Your task to perform on an android device: Check out the new nike air max 2020. Image 0: 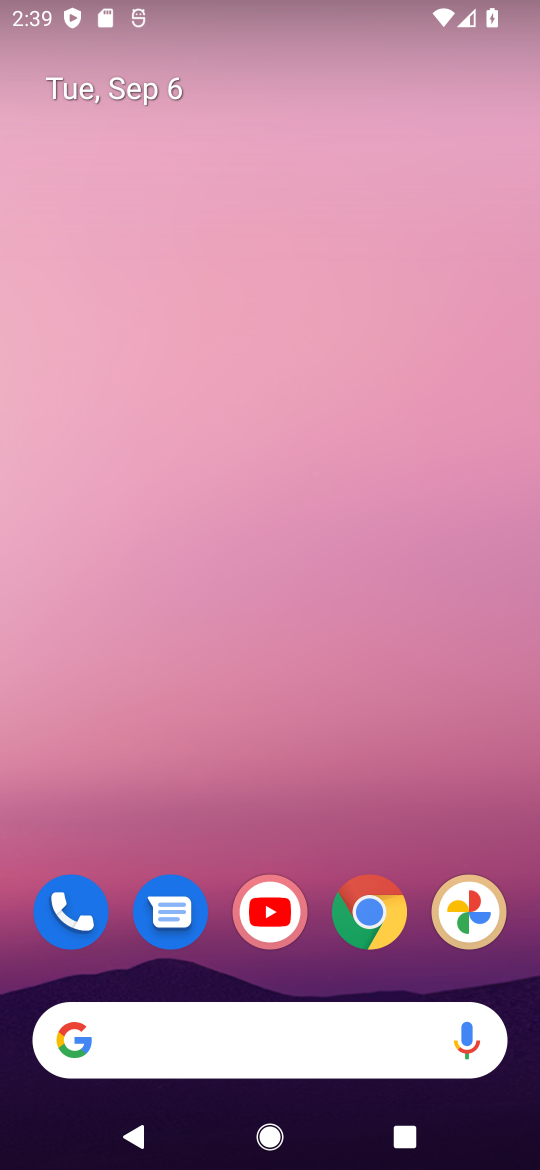
Step 0: drag from (329, 949) to (371, 132)
Your task to perform on an android device: Check out the new nike air max 2020. Image 1: 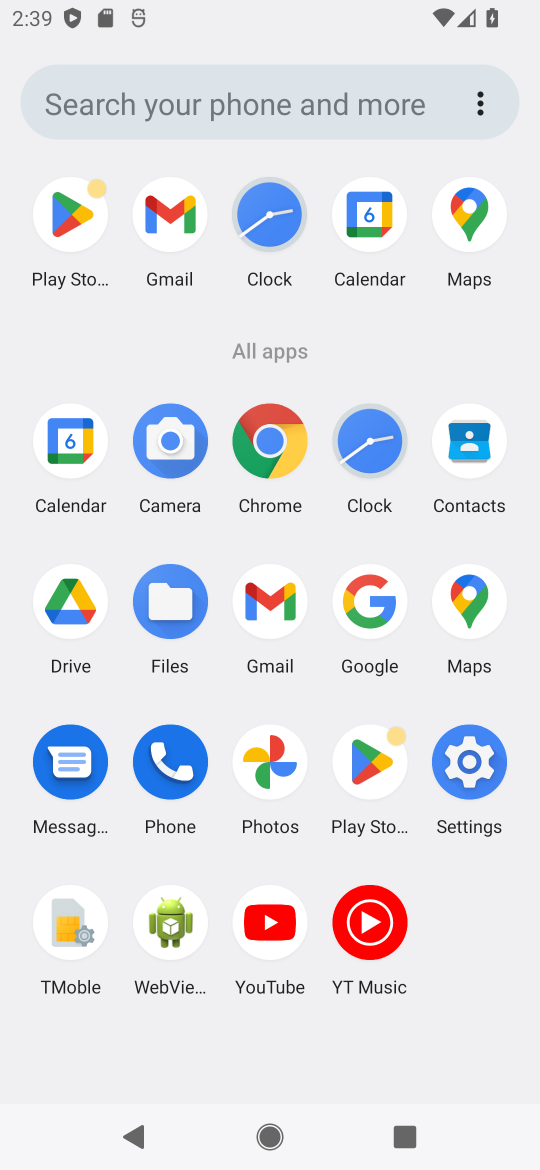
Step 1: click (265, 432)
Your task to perform on an android device: Check out the new nike air max 2020. Image 2: 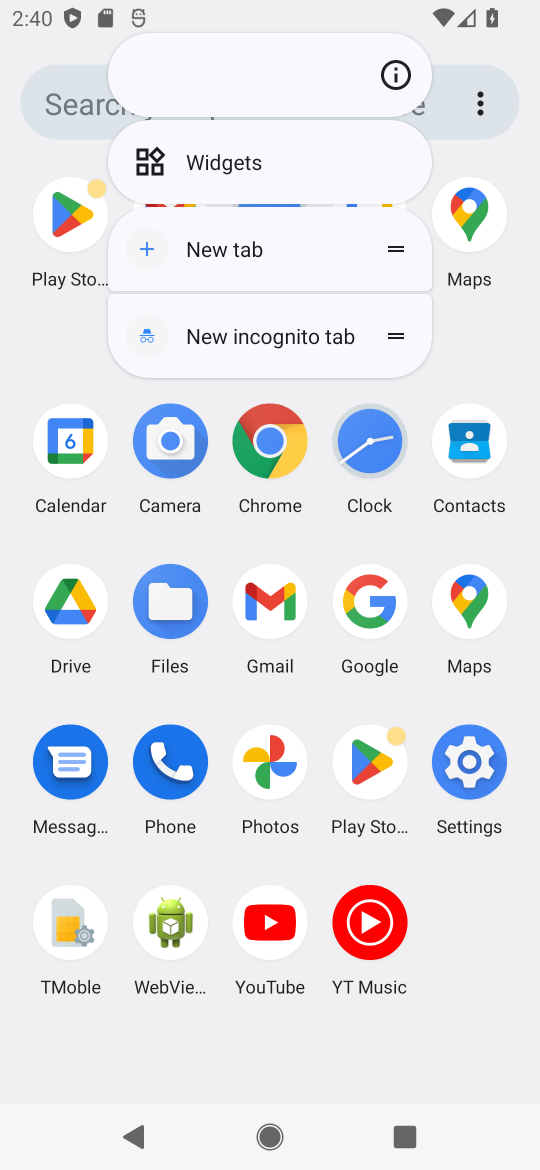
Step 2: click (263, 450)
Your task to perform on an android device: Check out the new nike air max 2020. Image 3: 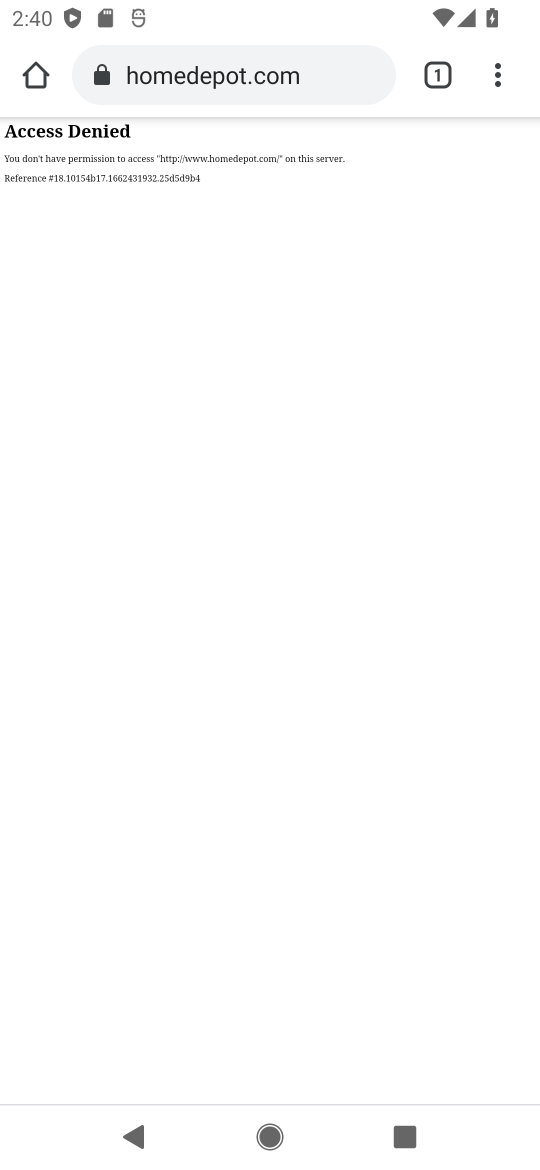
Step 3: click (205, 75)
Your task to perform on an android device: Check out the new nike air max 2020. Image 4: 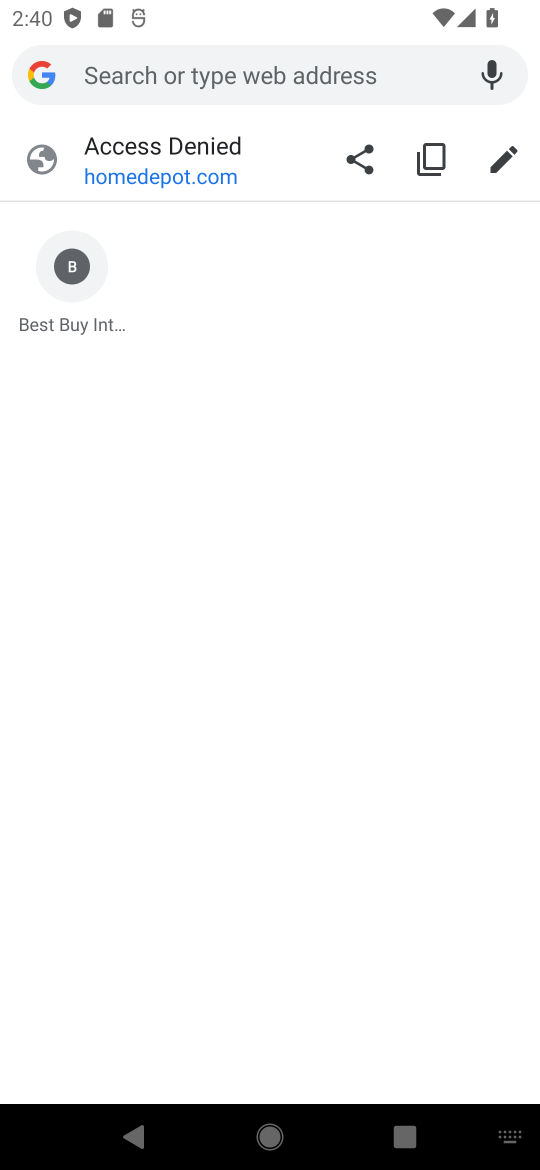
Step 4: type "new nike air max 2020"
Your task to perform on an android device: Check out the new nike air max 2020. Image 5: 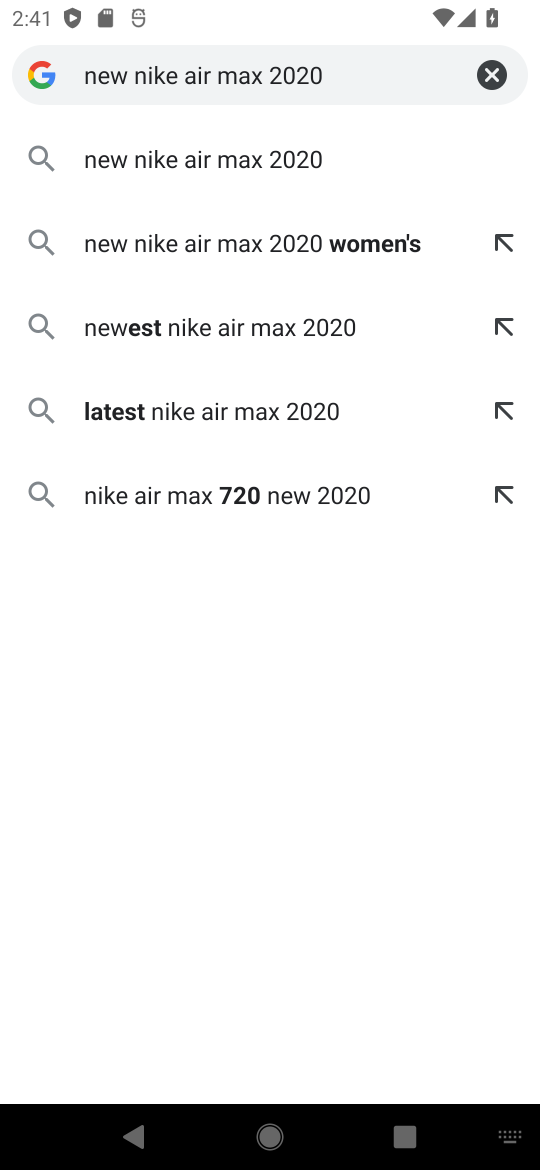
Step 5: click (236, 159)
Your task to perform on an android device: Check out the new nike air max 2020. Image 6: 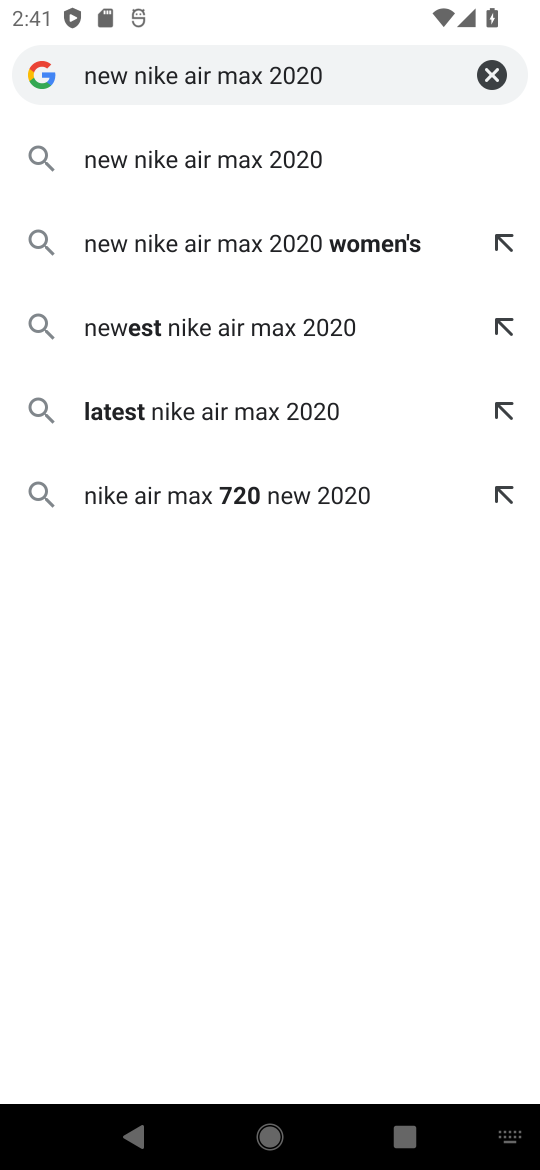
Step 6: click (237, 157)
Your task to perform on an android device: Check out the new nike air max 2020. Image 7: 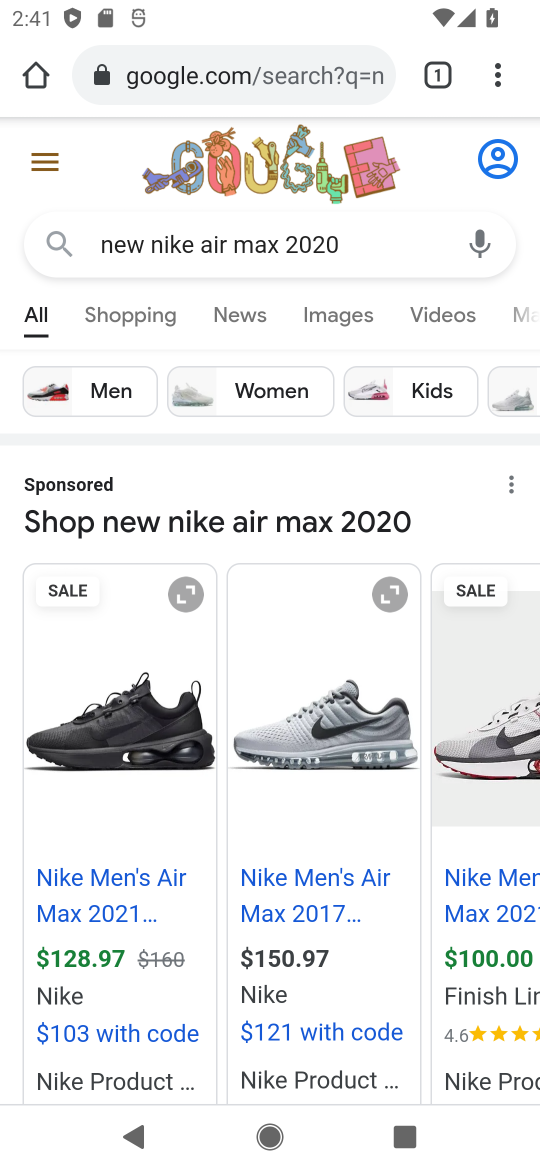
Step 7: task complete